Your task to perform on an android device: turn off data saver in the chrome app Image 0: 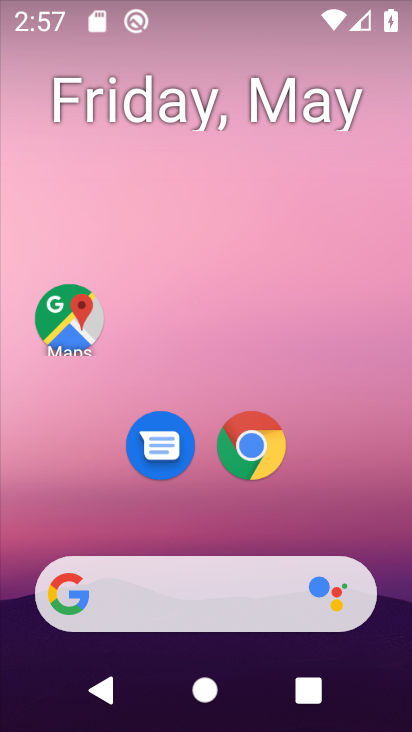
Step 0: drag from (244, 262) to (321, 77)
Your task to perform on an android device: turn off data saver in the chrome app Image 1: 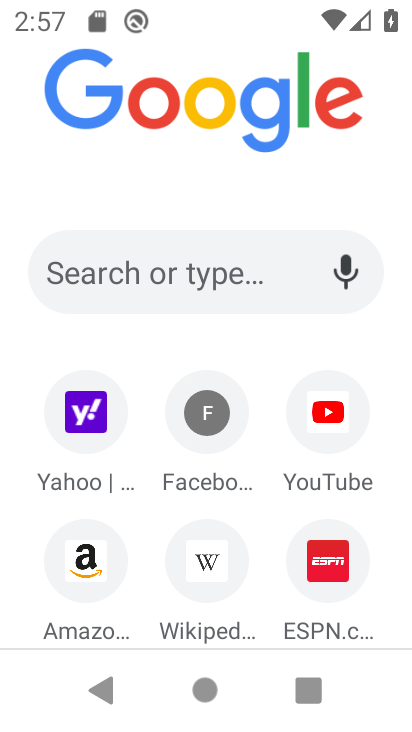
Step 1: drag from (281, 195) to (252, 598)
Your task to perform on an android device: turn off data saver in the chrome app Image 2: 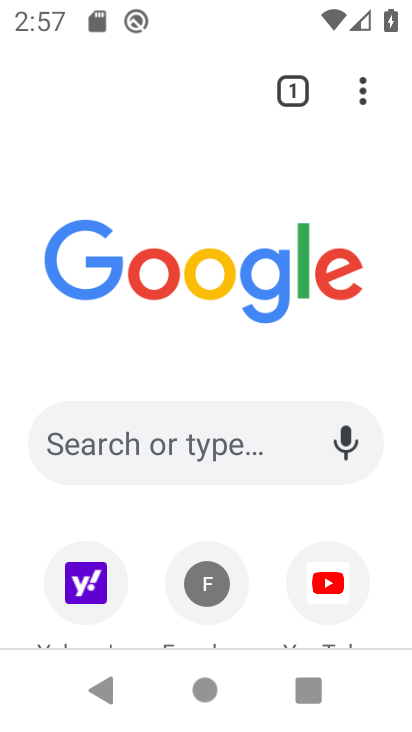
Step 2: click (354, 73)
Your task to perform on an android device: turn off data saver in the chrome app Image 3: 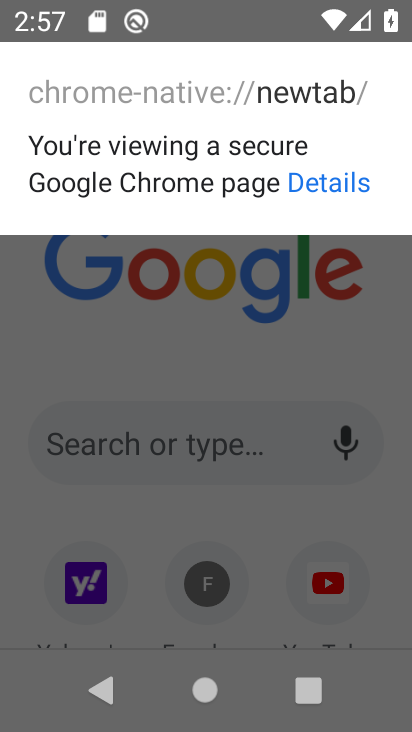
Step 3: click (247, 337)
Your task to perform on an android device: turn off data saver in the chrome app Image 4: 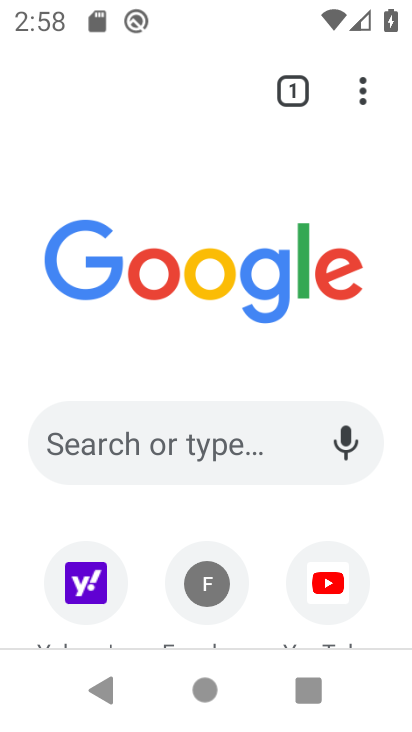
Step 4: click (368, 94)
Your task to perform on an android device: turn off data saver in the chrome app Image 5: 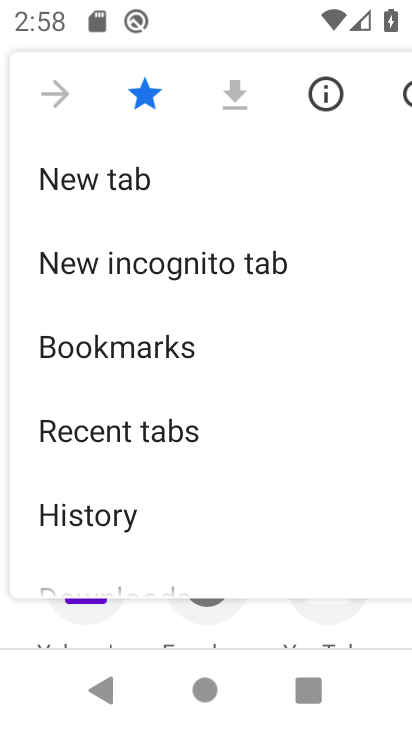
Step 5: drag from (211, 482) to (321, 152)
Your task to perform on an android device: turn off data saver in the chrome app Image 6: 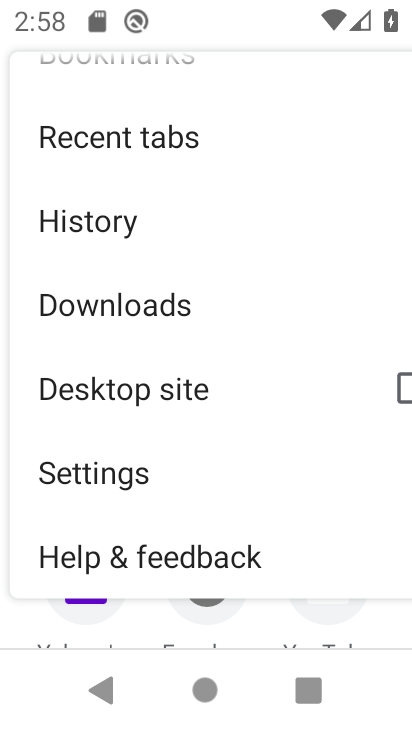
Step 6: click (113, 482)
Your task to perform on an android device: turn off data saver in the chrome app Image 7: 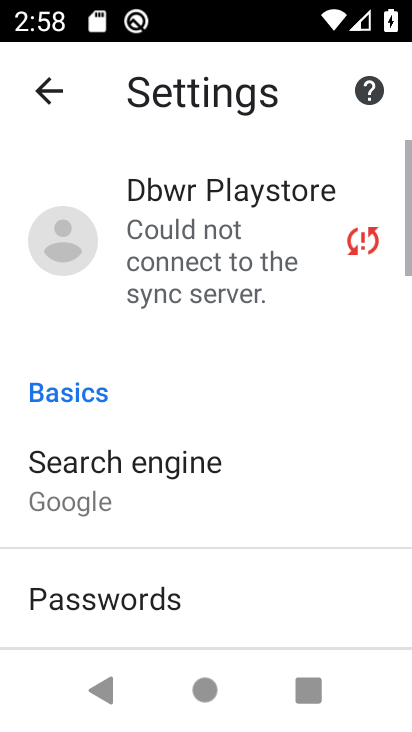
Step 7: drag from (217, 517) to (313, 135)
Your task to perform on an android device: turn off data saver in the chrome app Image 8: 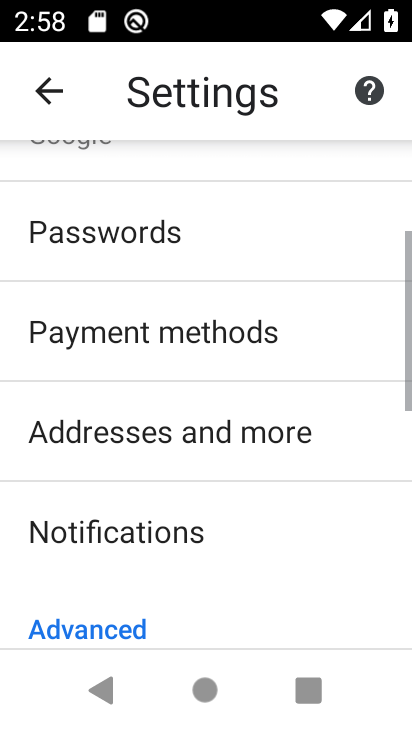
Step 8: drag from (148, 659) to (308, 203)
Your task to perform on an android device: turn off data saver in the chrome app Image 9: 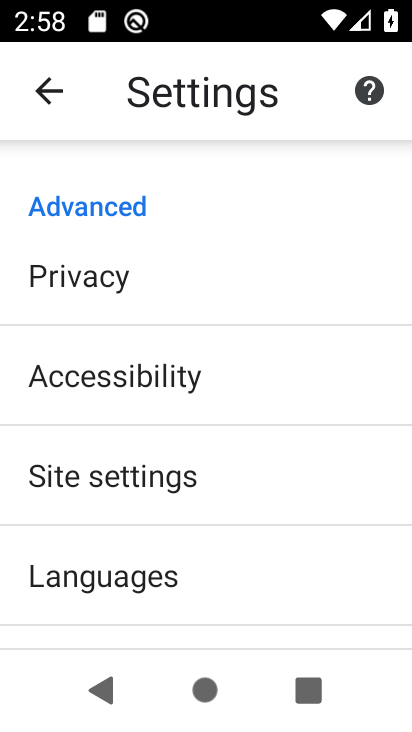
Step 9: drag from (130, 574) to (239, 223)
Your task to perform on an android device: turn off data saver in the chrome app Image 10: 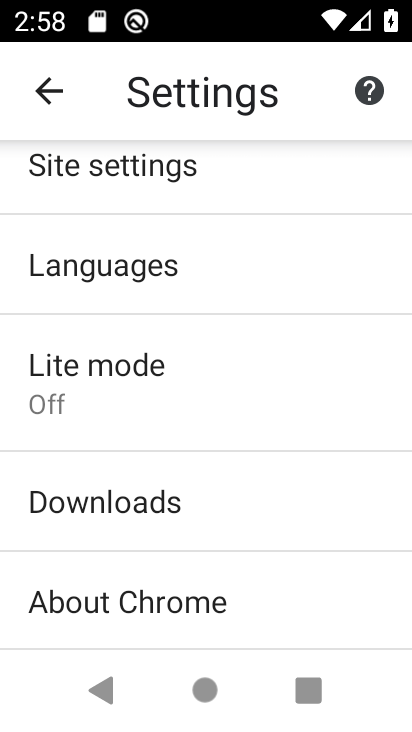
Step 10: click (135, 395)
Your task to perform on an android device: turn off data saver in the chrome app Image 11: 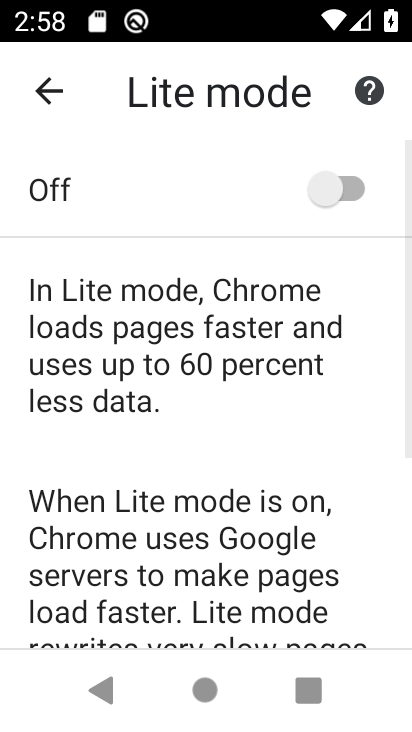
Step 11: click (325, 207)
Your task to perform on an android device: turn off data saver in the chrome app Image 12: 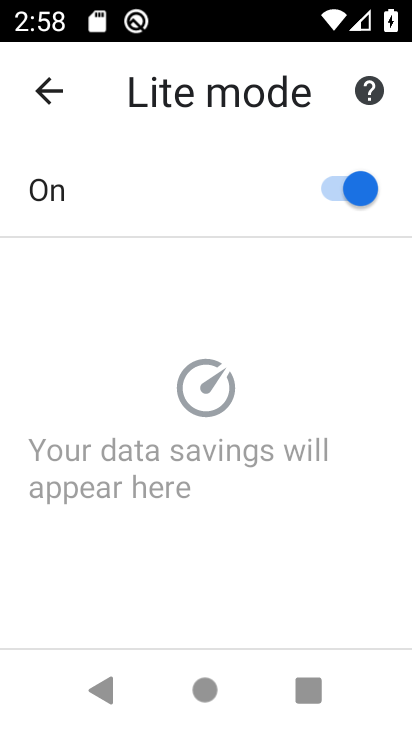
Step 12: task complete